Your task to perform on an android device: turn off javascript in the chrome app Image 0: 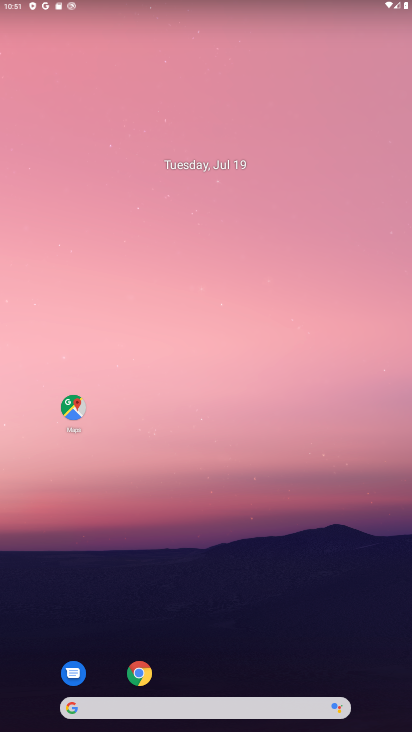
Step 0: click (141, 676)
Your task to perform on an android device: turn off javascript in the chrome app Image 1: 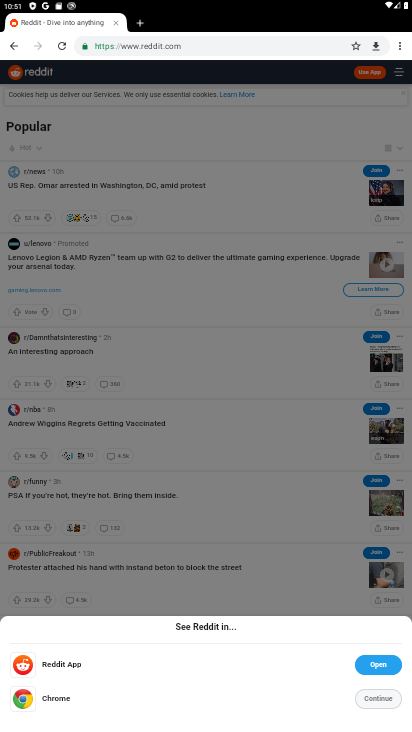
Step 1: click (399, 47)
Your task to perform on an android device: turn off javascript in the chrome app Image 2: 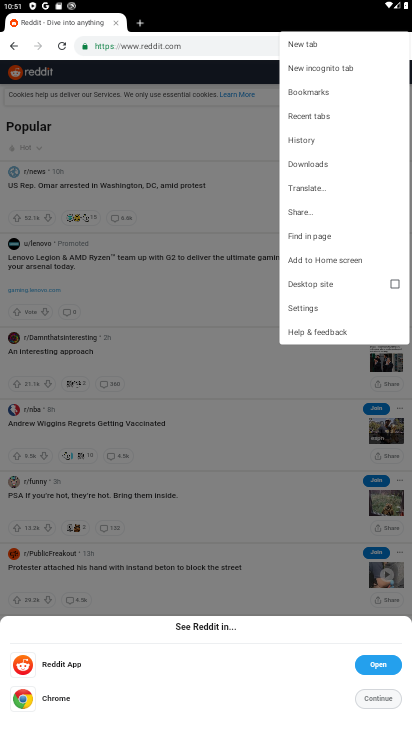
Step 2: click (304, 305)
Your task to perform on an android device: turn off javascript in the chrome app Image 3: 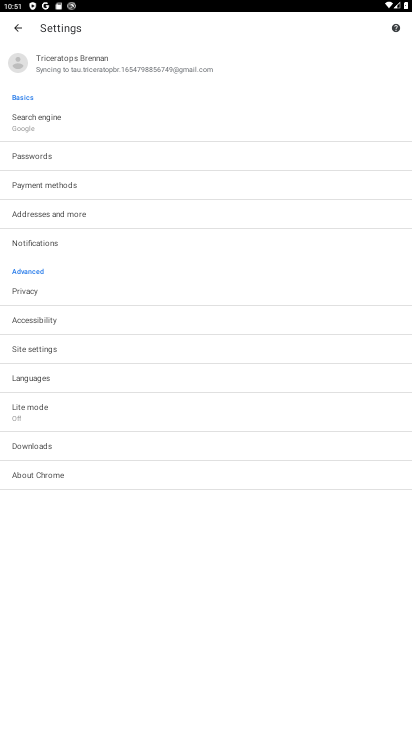
Step 3: click (32, 348)
Your task to perform on an android device: turn off javascript in the chrome app Image 4: 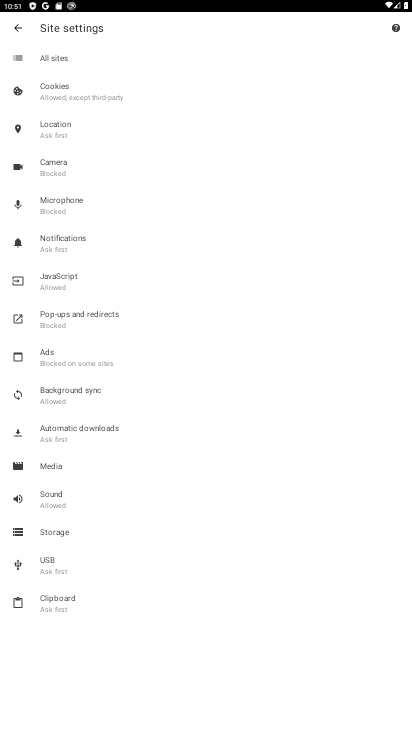
Step 4: click (50, 274)
Your task to perform on an android device: turn off javascript in the chrome app Image 5: 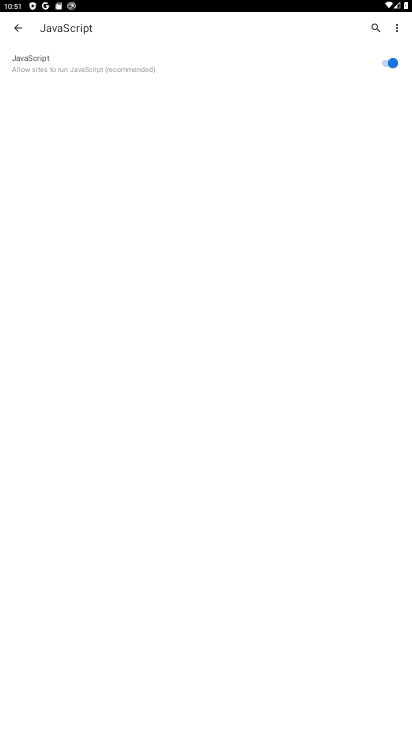
Step 5: click (384, 65)
Your task to perform on an android device: turn off javascript in the chrome app Image 6: 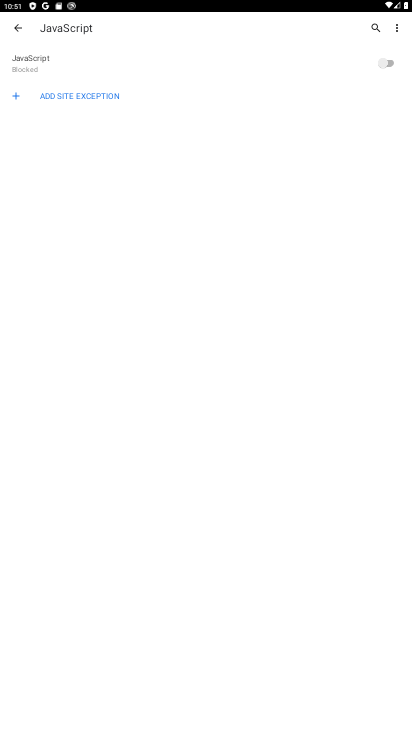
Step 6: task complete